Your task to perform on an android device: change the clock display to show seconds Image 0: 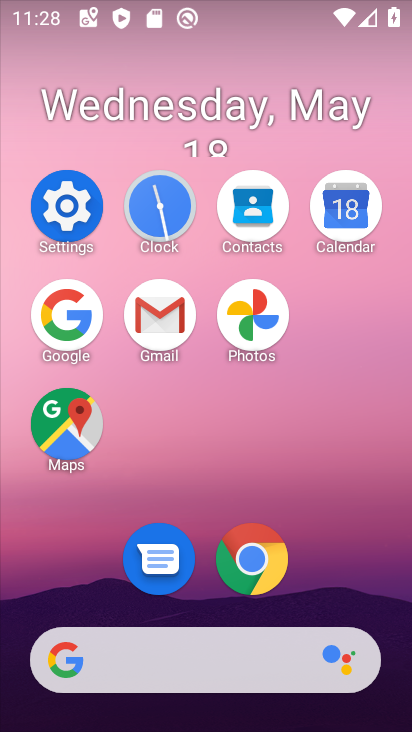
Step 0: click (155, 195)
Your task to perform on an android device: change the clock display to show seconds Image 1: 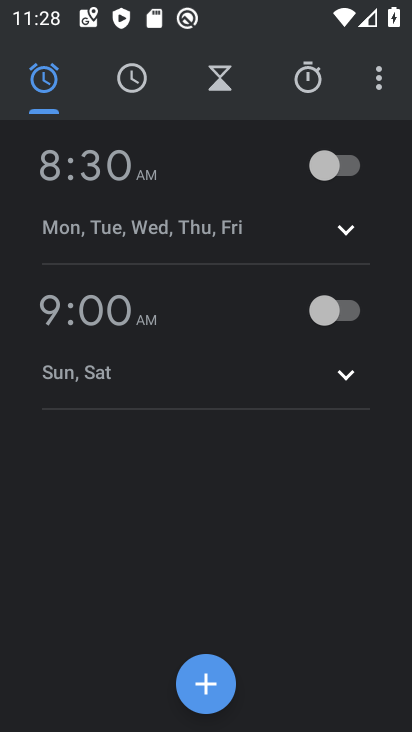
Step 1: click (369, 77)
Your task to perform on an android device: change the clock display to show seconds Image 2: 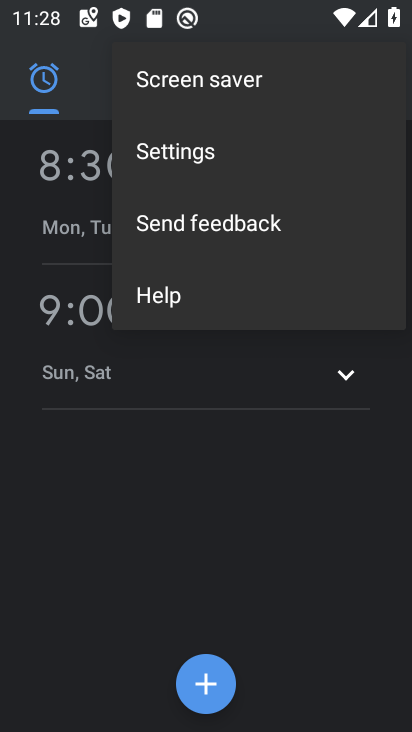
Step 2: click (258, 165)
Your task to perform on an android device: change the clock display to show seconds Image 3: 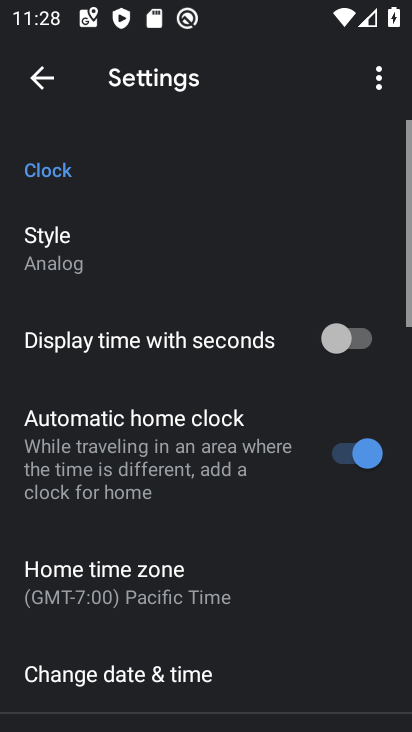
Step 3: click (362, 352)
Your task to perform on an android device: change the clock display to show seconds Image 4: 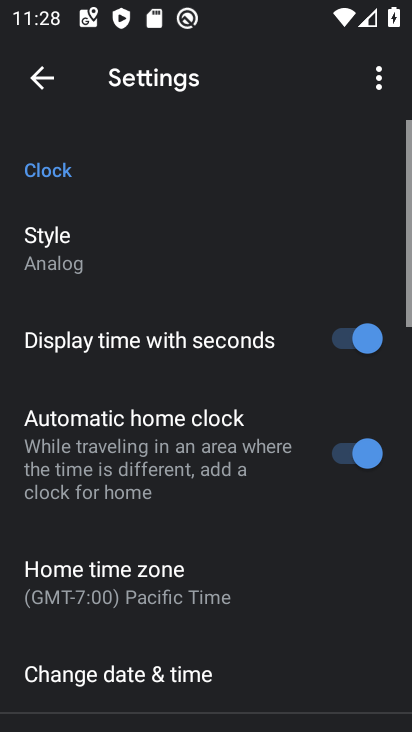
Step 4: task complete